Your task to perform on an android device: Open privacy settings Image 0: 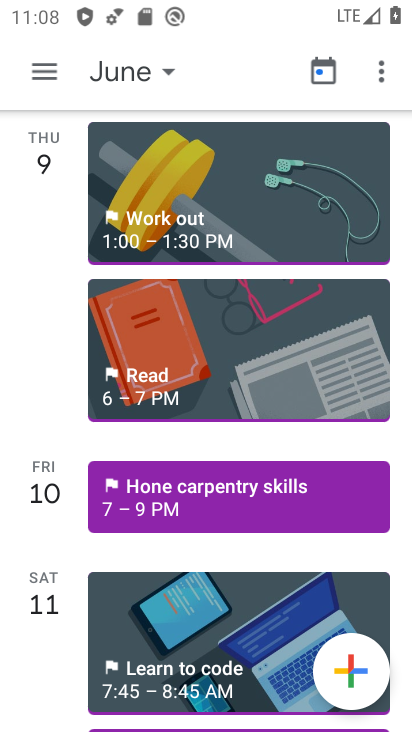
Step 0: press home button
Your task to perform on an android device: Open privacy settings Image 1: 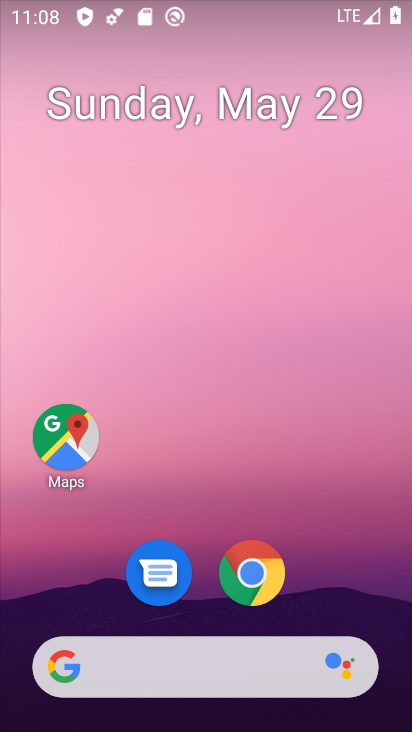
Step 1: drag from (355, 542) to (344, 15)
Your task to perform on an android device: Open privacy settings Image 2: 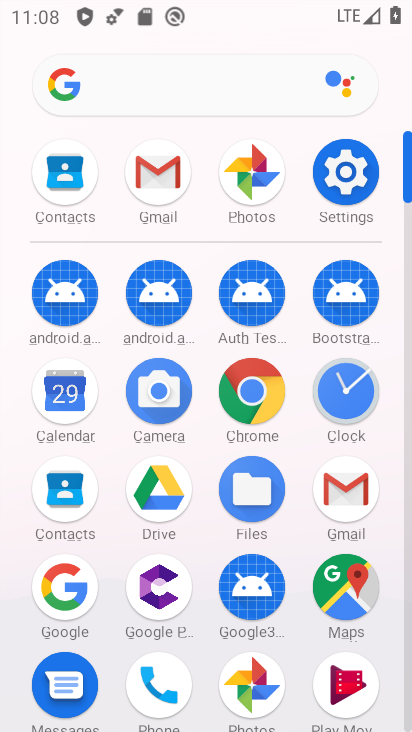
Step 2: click (336, 162)
Your task to perform on an android device: Open privacy settings Image 3: 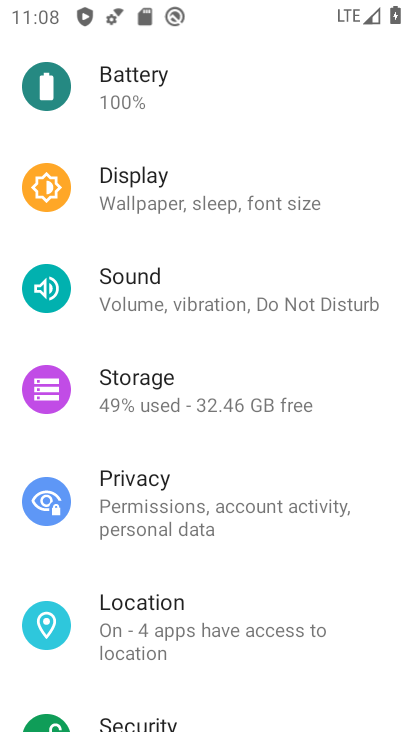
Step 3: click (221, 511)
Your task to perform on an android device: Open privacy settings Image 4: 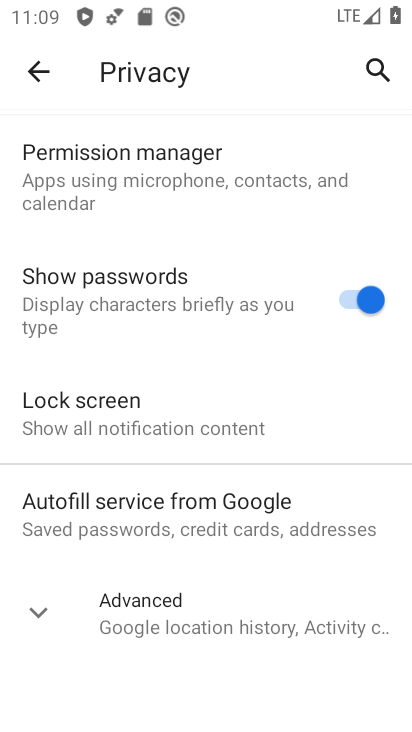
Step 4: task complete